Your task to perform on an android device: toggle priority inbox in the gmail app Image 0: 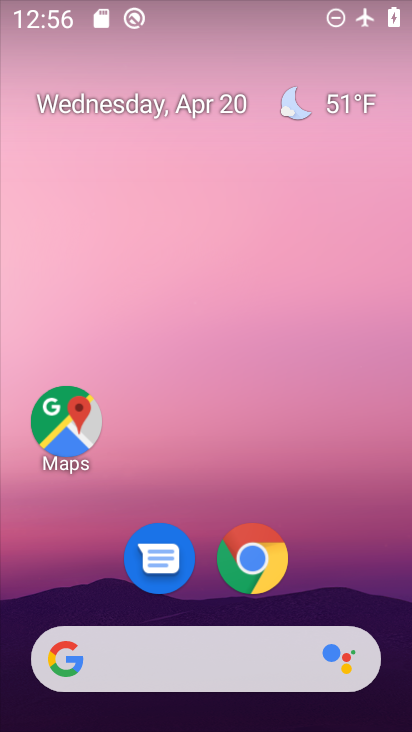
Step 0: drag from (360, 600) to (323, 131)
Your task to perform on an android device: toggle priority inbox in the gmail app Image 1: 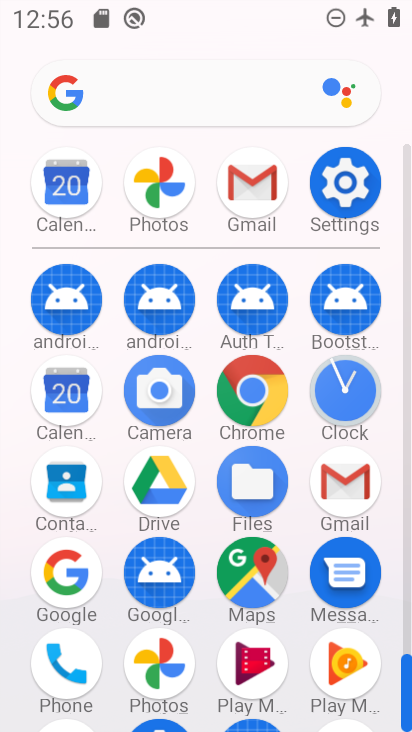
Step 1: click (341, 480)
Your task to perform on an android device: toggle priority inbox in the gmail app Image 2: 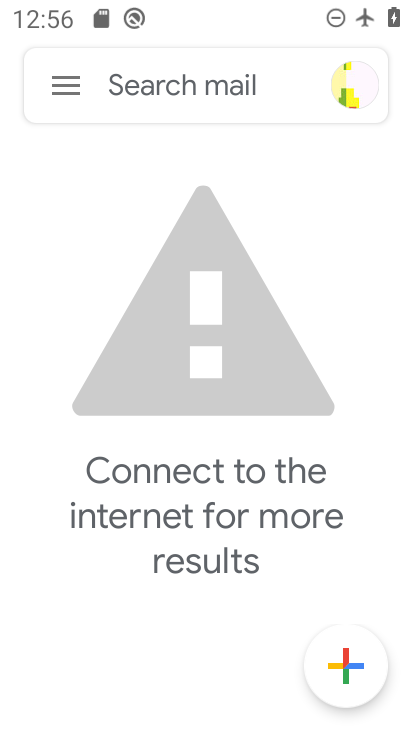
Step 2: click (64, 90)
Your task to perform on an android device: toggle priority inbox in the gmail app Image 3: 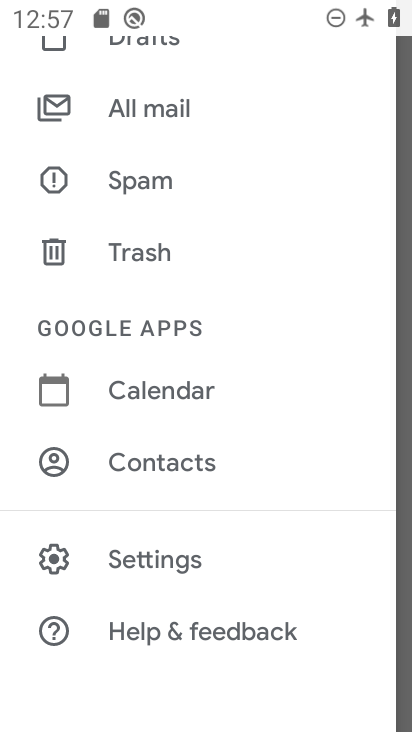
Step 3: click (165, 563)
Your task to perform on an android device: toggle priority inbox in the gmail app Image 4: 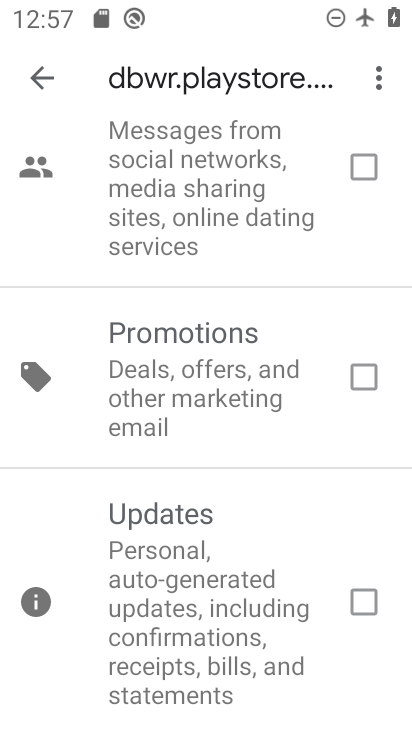
Step 4: press back button
Your task to perform on an android device: toggle priority inbox in the gmail app Image 5: 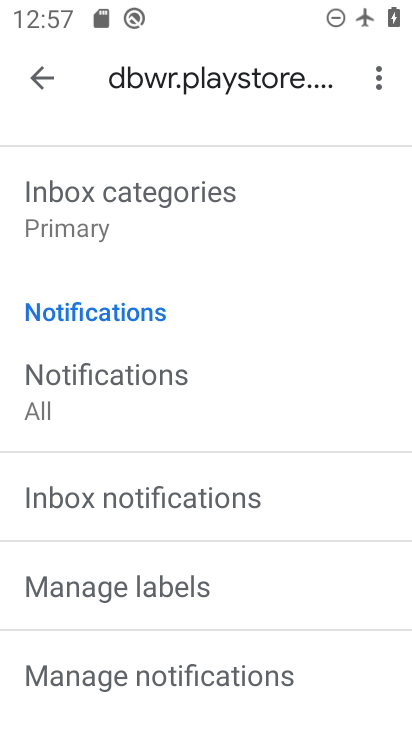
Step 5: drag from (90, 190) to (173, 454)
Your task to perform on an android device: toggle priority inbox in the gmail app Image 6: 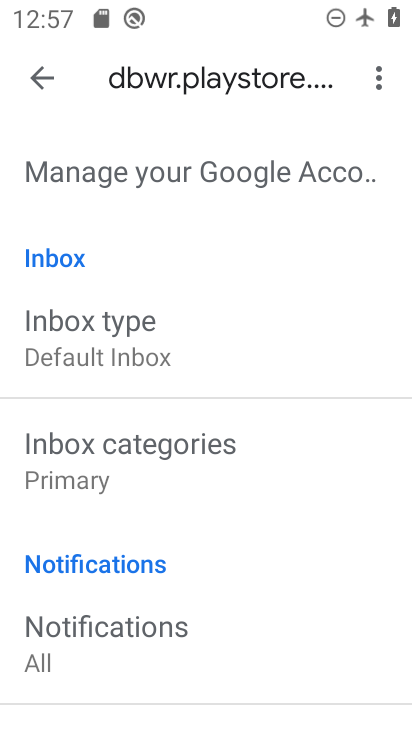
Step 6: click (93, 352)
Your task to perform on an android device: toggle priority inbox in the gmail app Image 7: 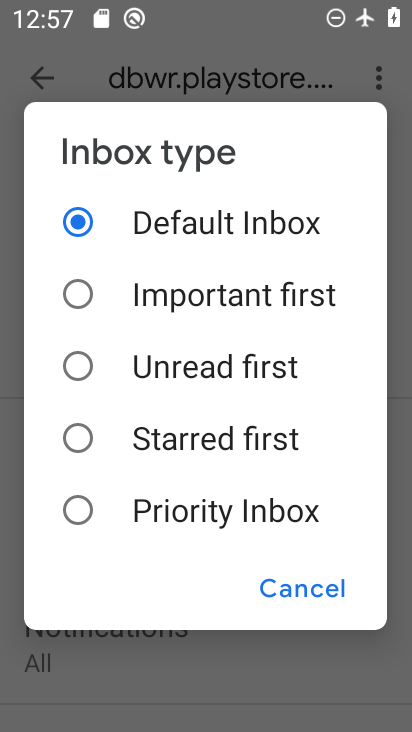
Step 7: click (85, 520)
Your task to perform on an android device: toggle priority inbox in the gmail app Image 8: 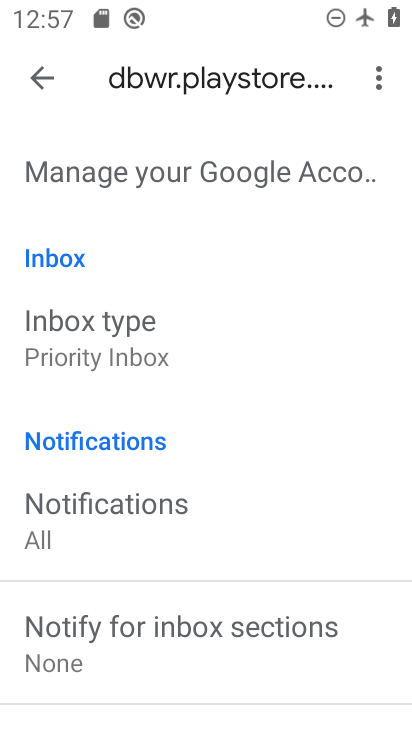
Step 8: task complete